Your task to perform on an android device: Go to battery settings Image 0: 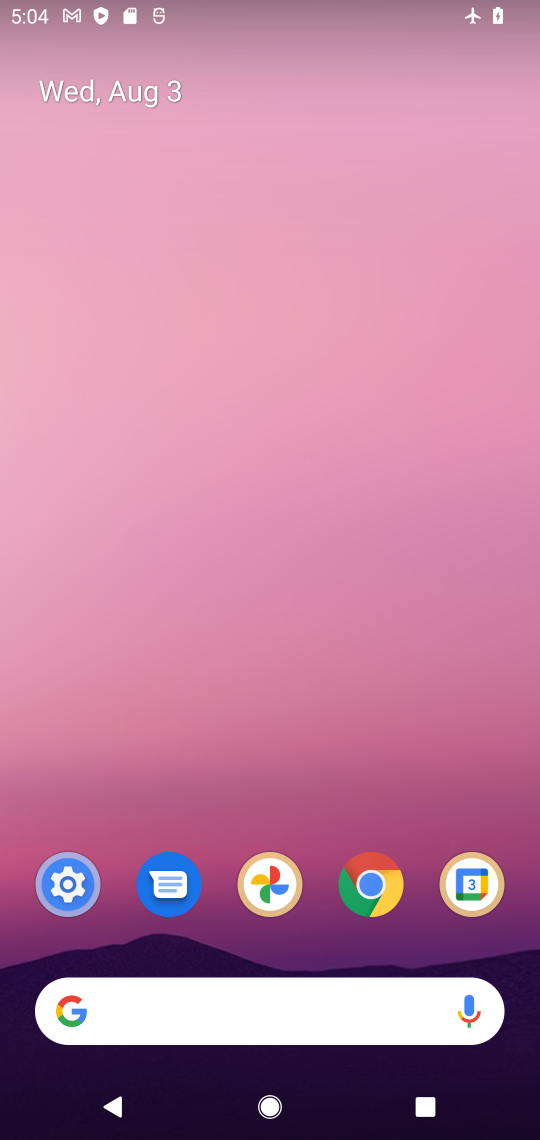
Step 0: drag from (152, 1022) to (249, 146)
Your task to perform on an android device: Go to battery settings Image 1: 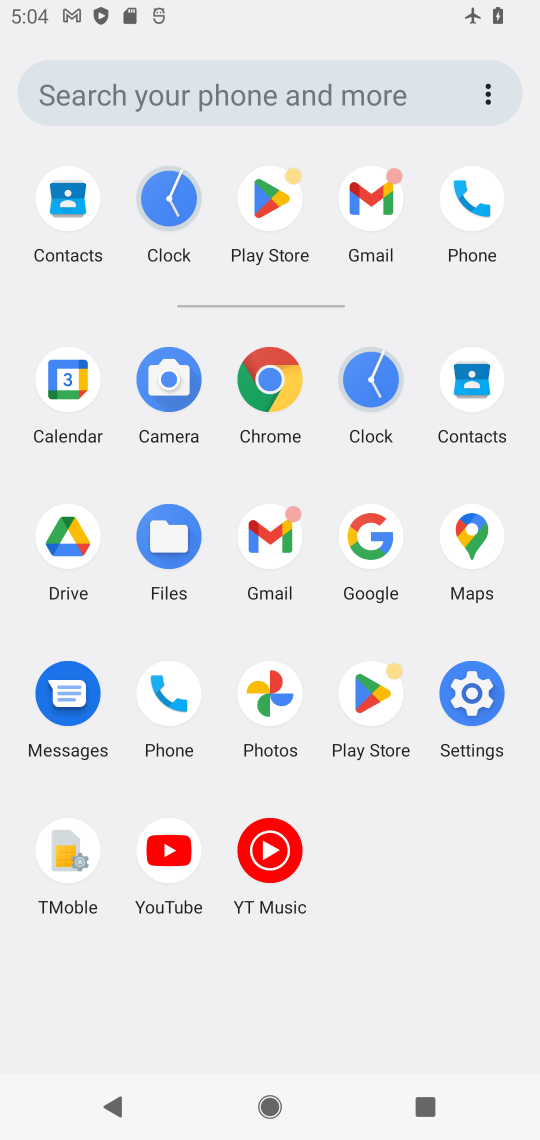
Step 1: click (483, 708)
Your task to perform on an android device: Go to battery settings Image 2: 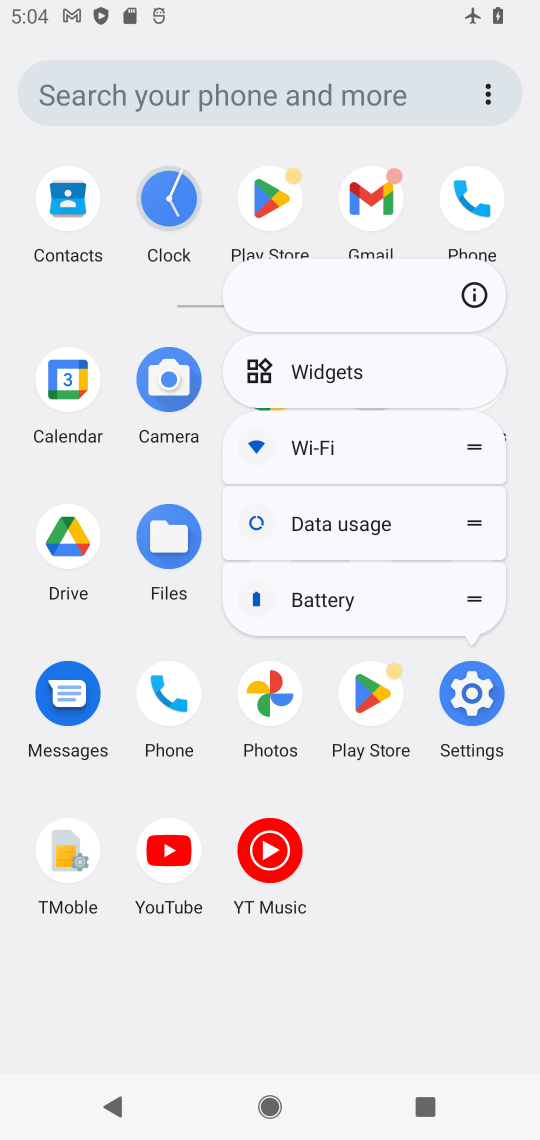
Step 2: click (483, 708)
Your task to perform on an android device: Go to battery settings Image 3: 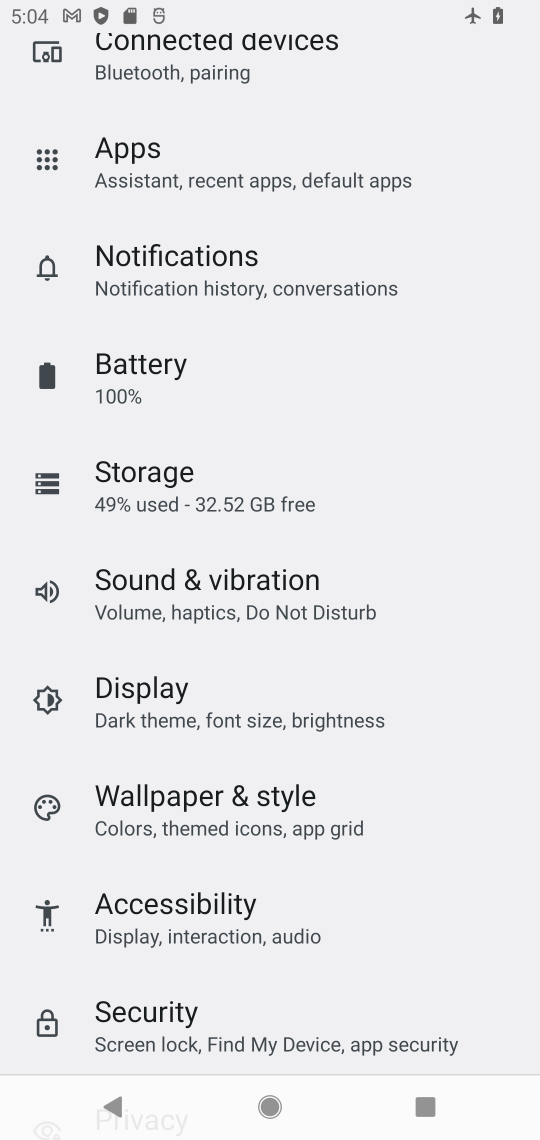
Step 3: click (137, 348)
Your task to perform on an android device: Go to battery settings Image 4: 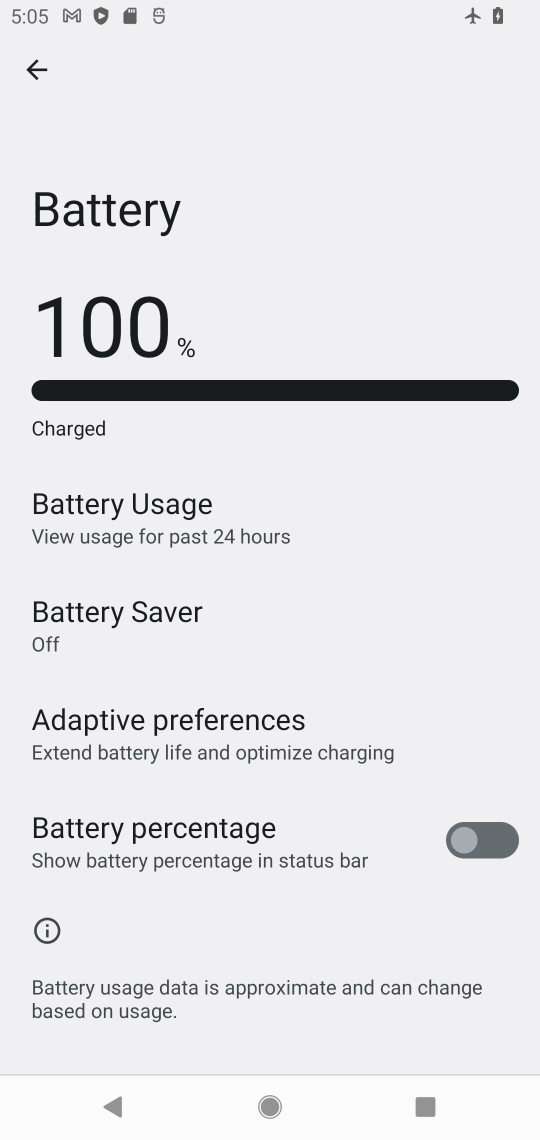
Step 4: task complete